Your task to perform on an android device: Open Google Chrome Image 0: 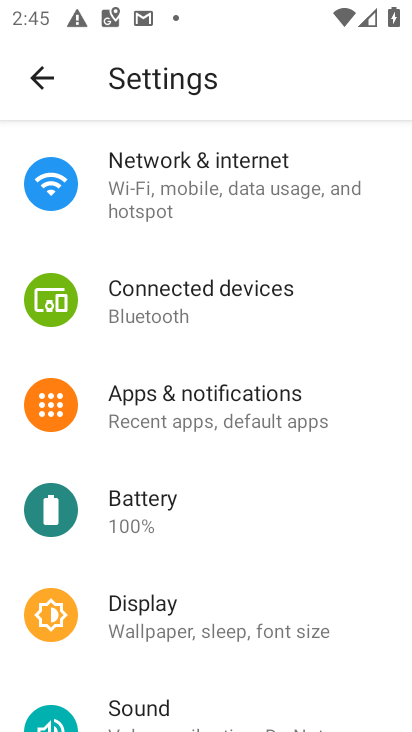
Step 0: press home button
Your task to perform on an android device: Open Google Chrome Image 1: 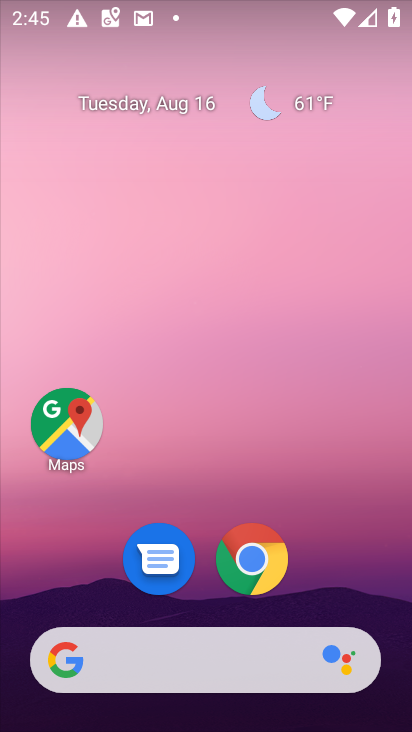
Step 1: click (253, 559)
Your task to perform on an android device: Open Google Chrome Image 2: 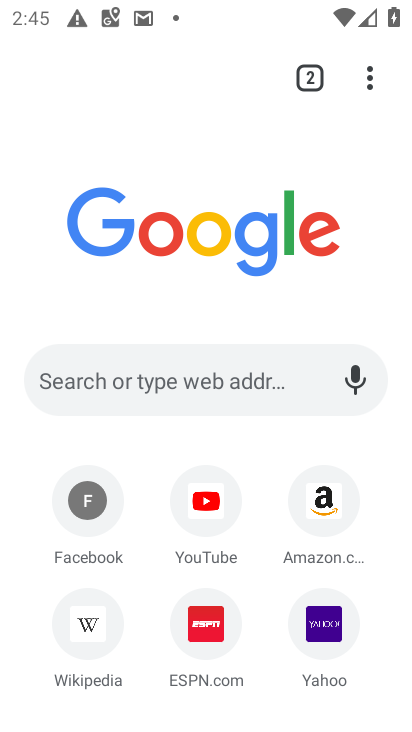
Step 2: task complete